Your task to perform on an android device: What's the US dollar exchange rate against the Canadian Dollar? Image 0: 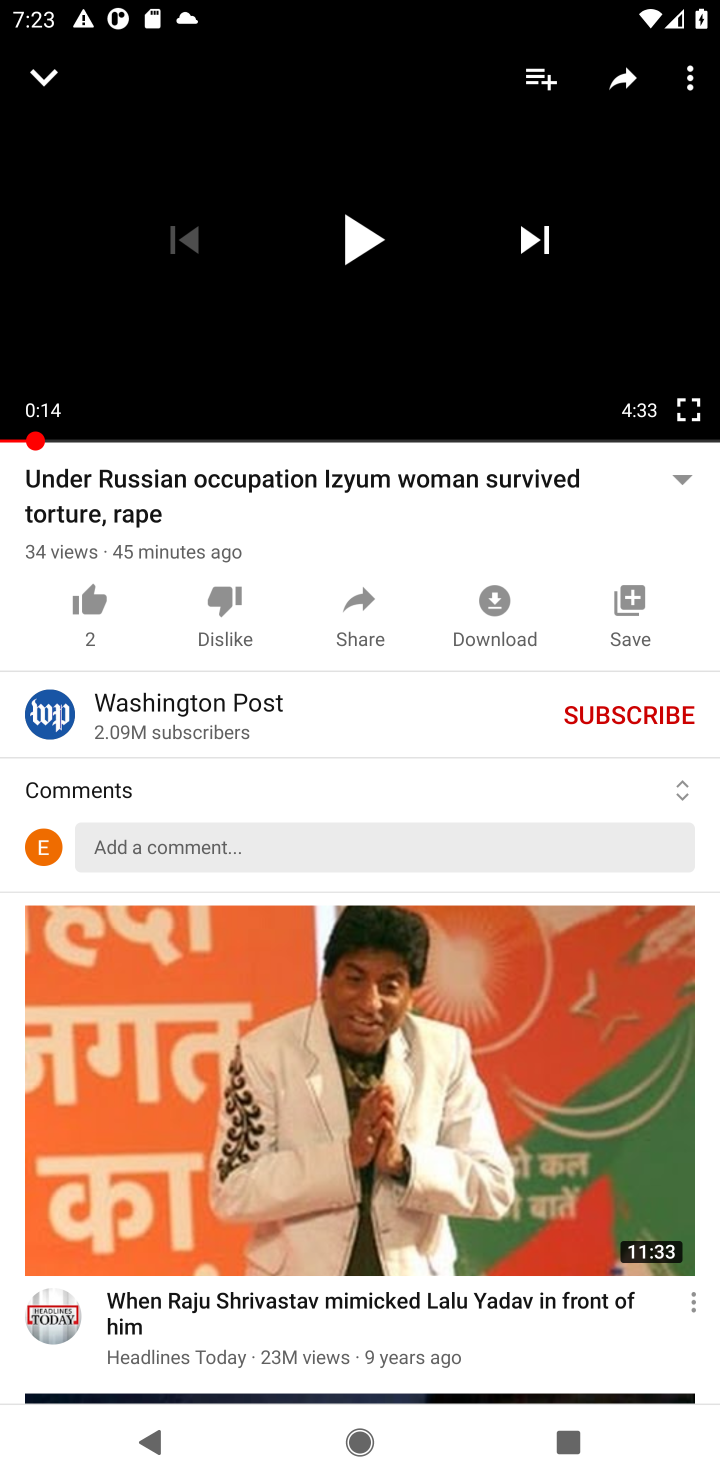
Step 0: press home button
Your task to perform on an android device: What's the US dollar exchange rate against the Canadian Dollar? Image 1: 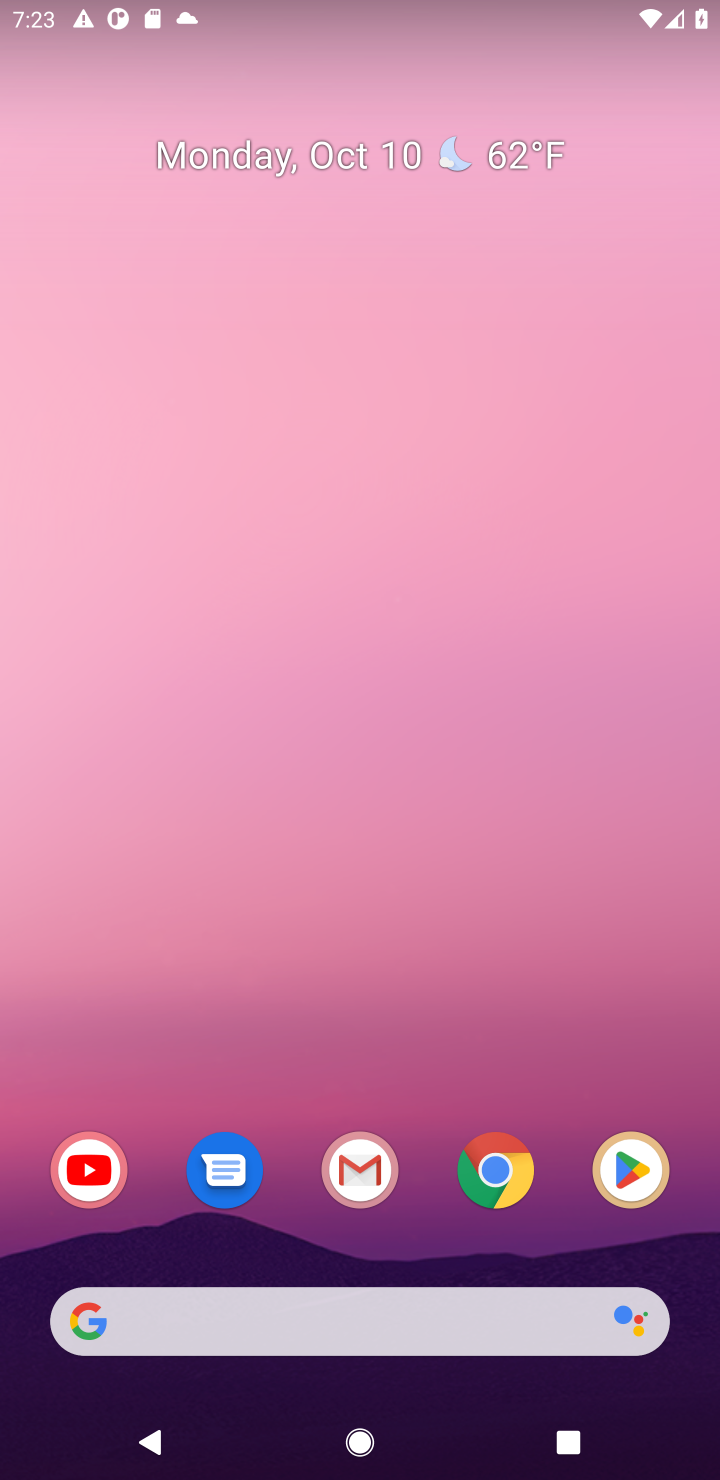
Step 1: drag from (418, 1429) to (719, 1114)
Your task to perform on an android device: What's the US dollar exchange rate against the Canadian Dollar? Image 2: 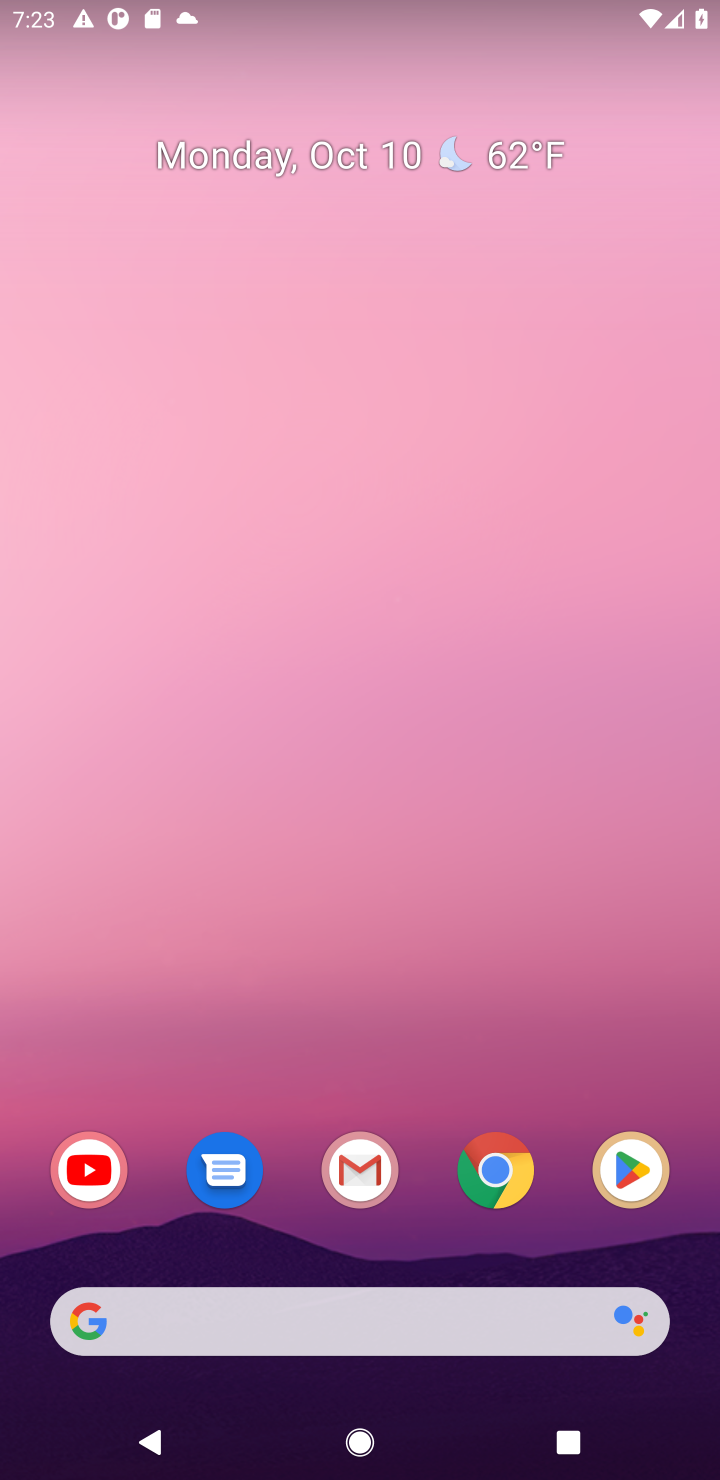
Step 2: click (502, 1199)
Your task to perform on an android device: What's the US dollar exchange rate against the Canadian Dollar? Image 3: 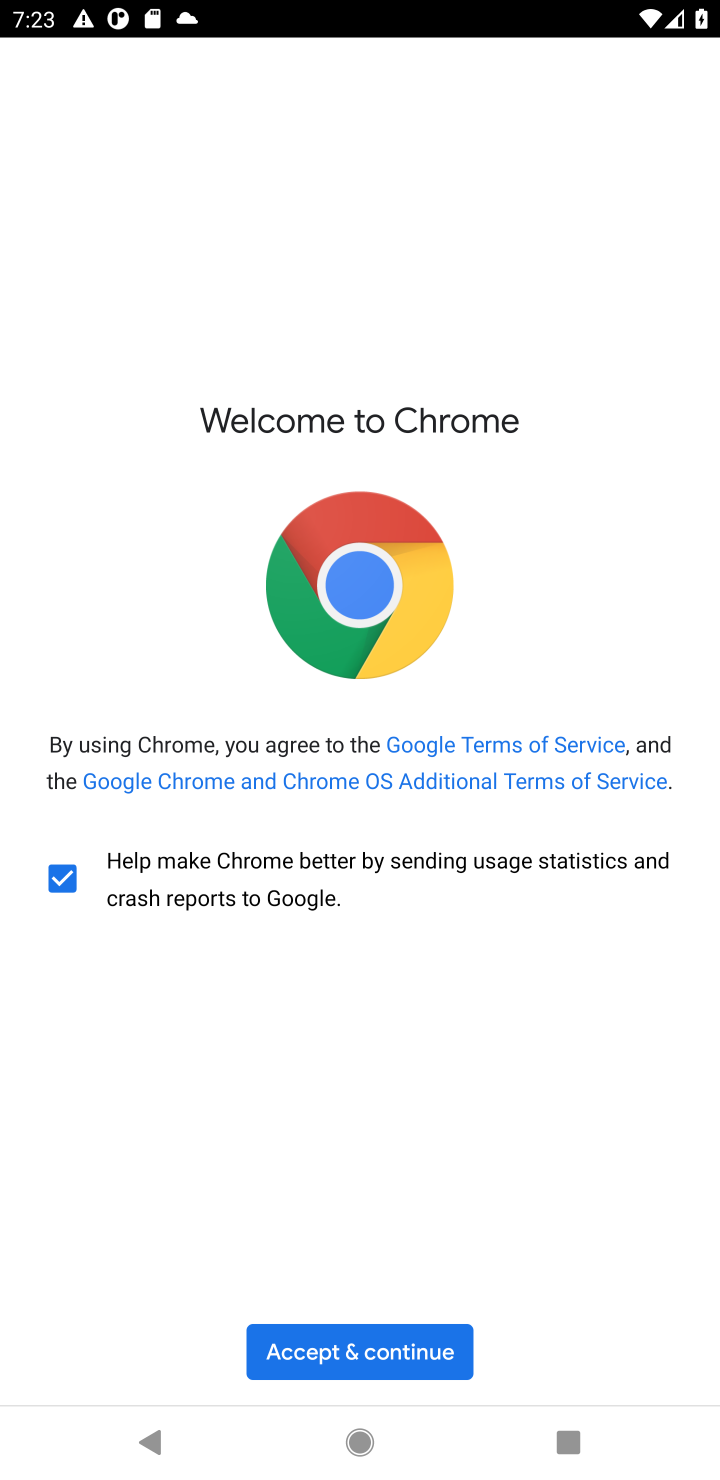
Step 3: click (375, 1339)
Your task to perform on an android device: What's the US dollar exchange rate against the Canadian Dollar? Image 4: 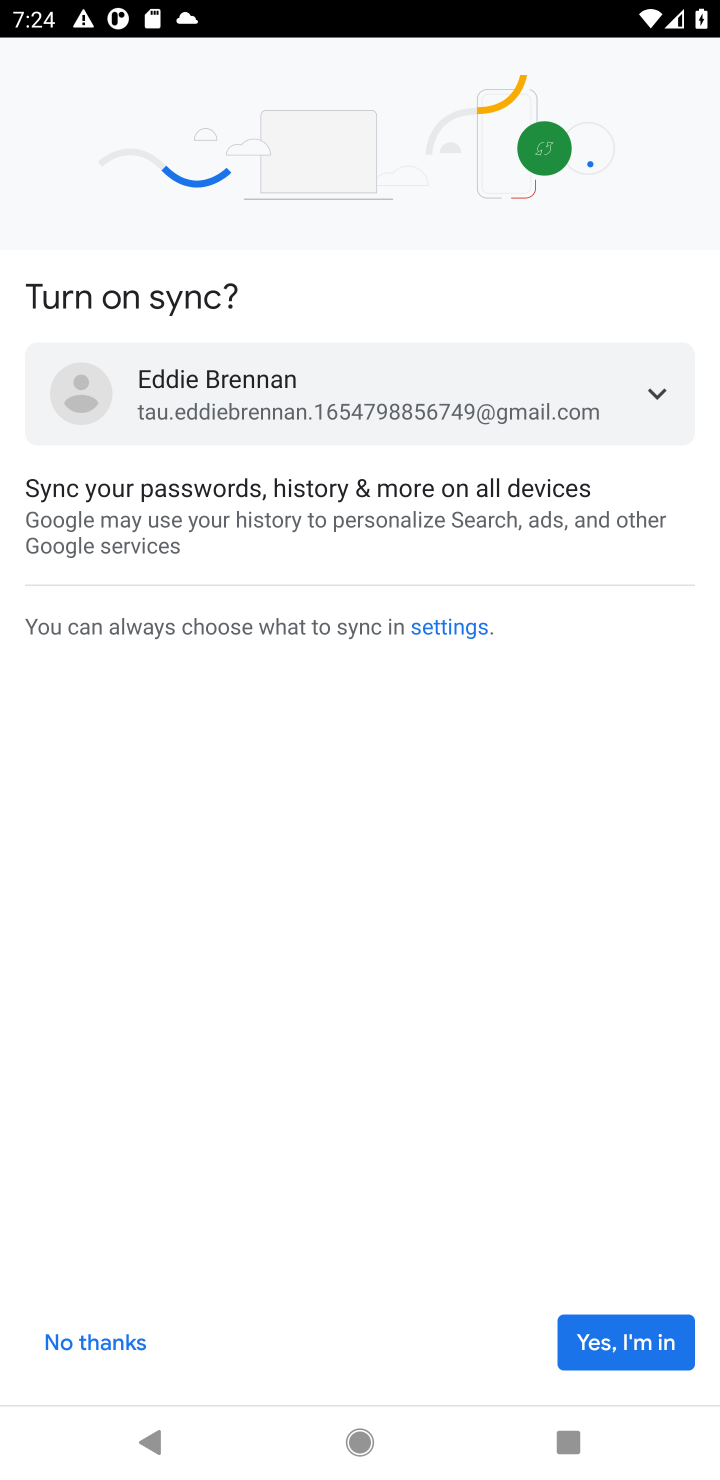
Step 4: click (618, 1332)
Your task to perform on an android device: What's the US dollar exchange rate against the Canadian Dollar? Image 5: 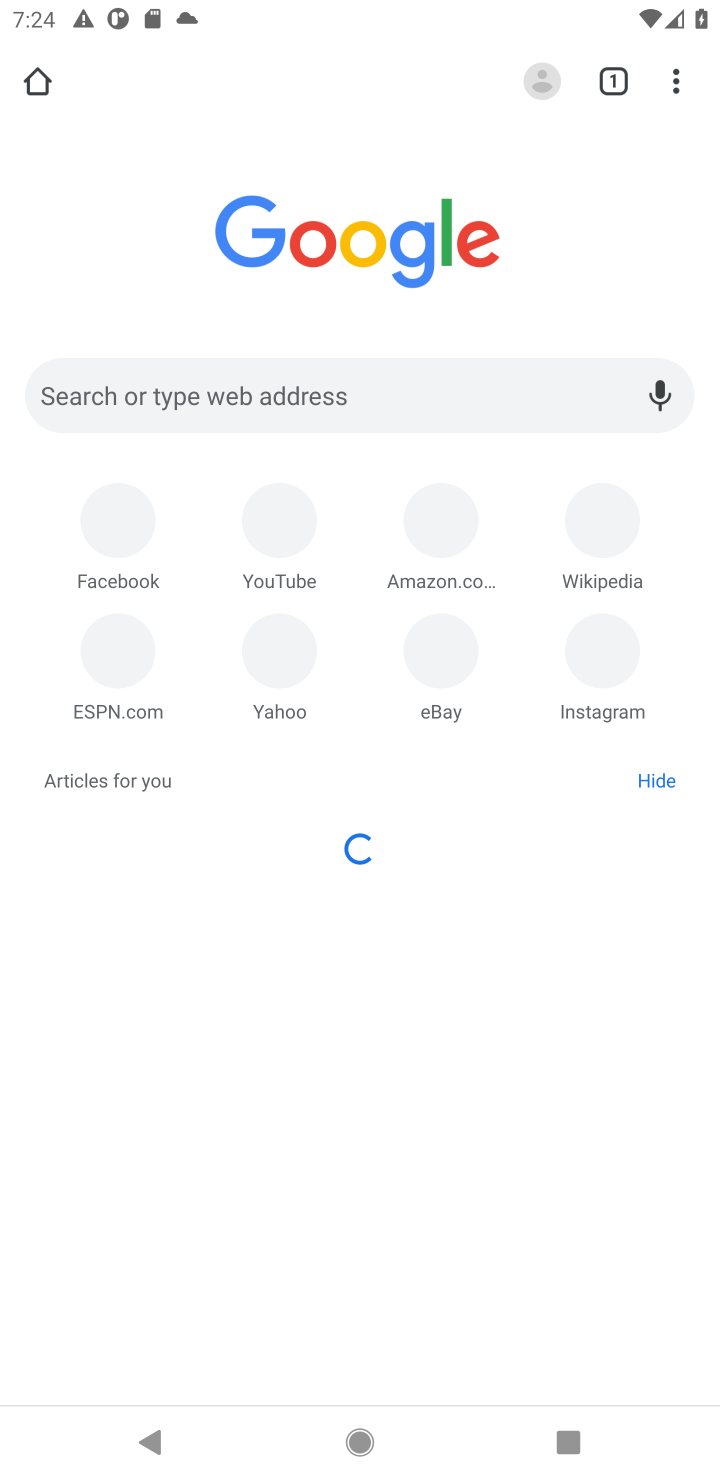
Step 5: click (335, 400)
Your task to perform on an android device: What's the US dollar exchange rate against the Canadian Dollar? Image 6: 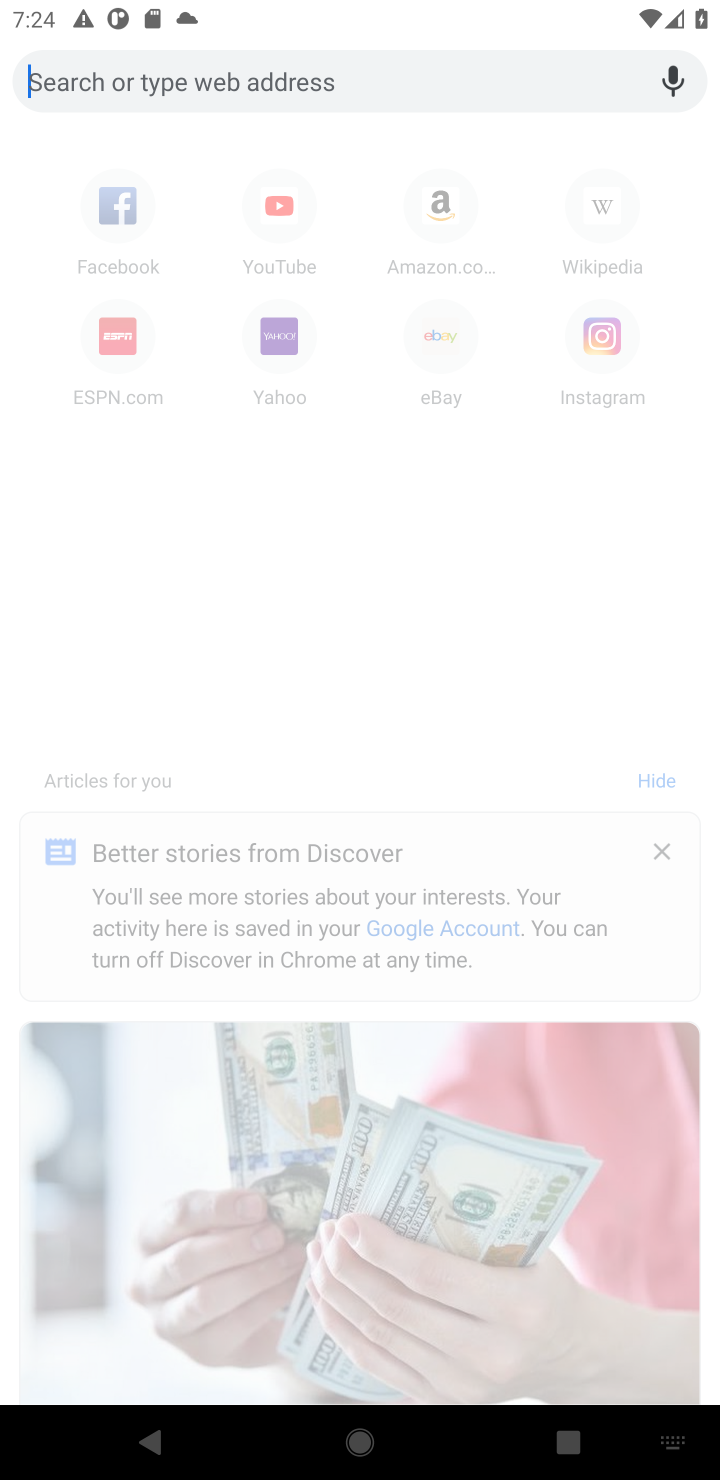
Step 6: type "US dollar exchange rate against the Canadian Dollar"
Your task to perform on an android device: What's the US dollar exchange rate against the Canadian Dollar? Image 7: 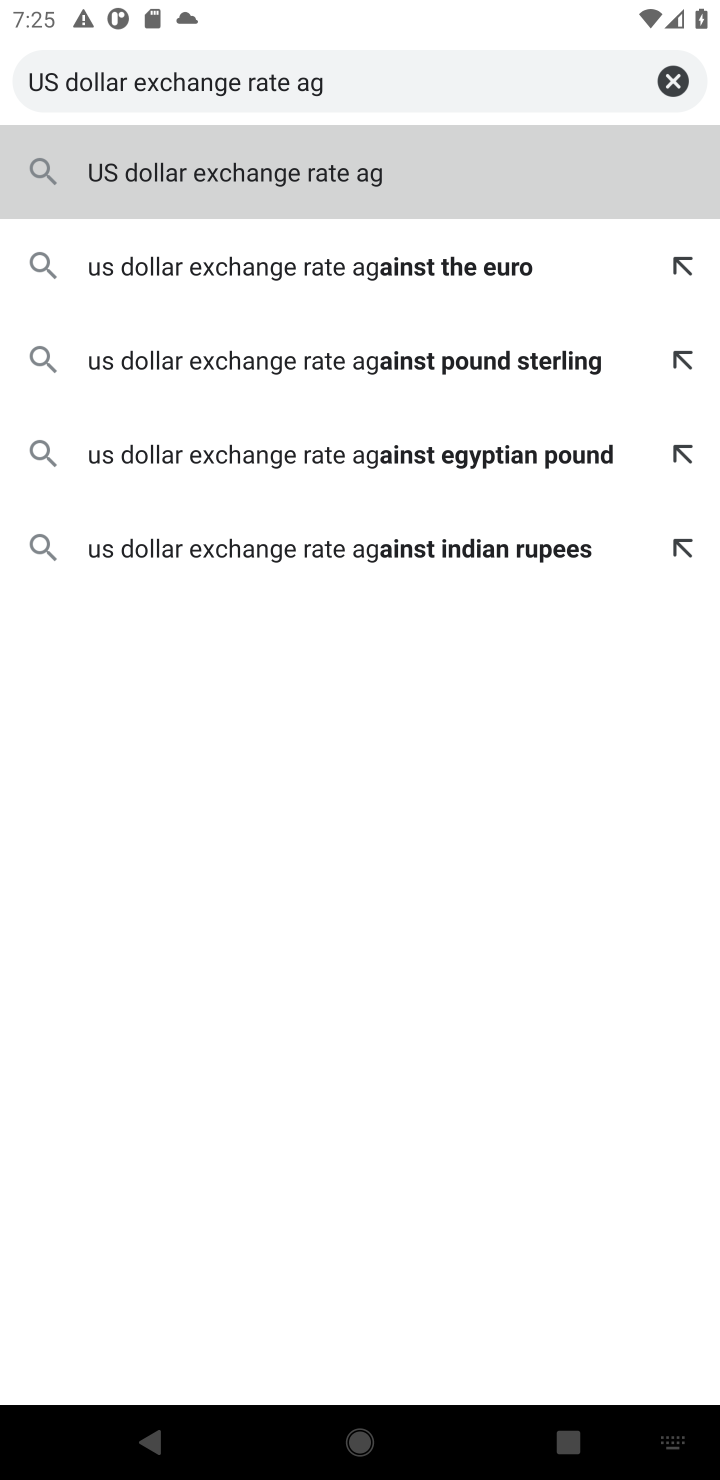
Step 7: type "ainst the Canadian Dollar"
Your task to perform on an android device: What's the US dollar exchange rate against the Canadian Dollar? Image 8: 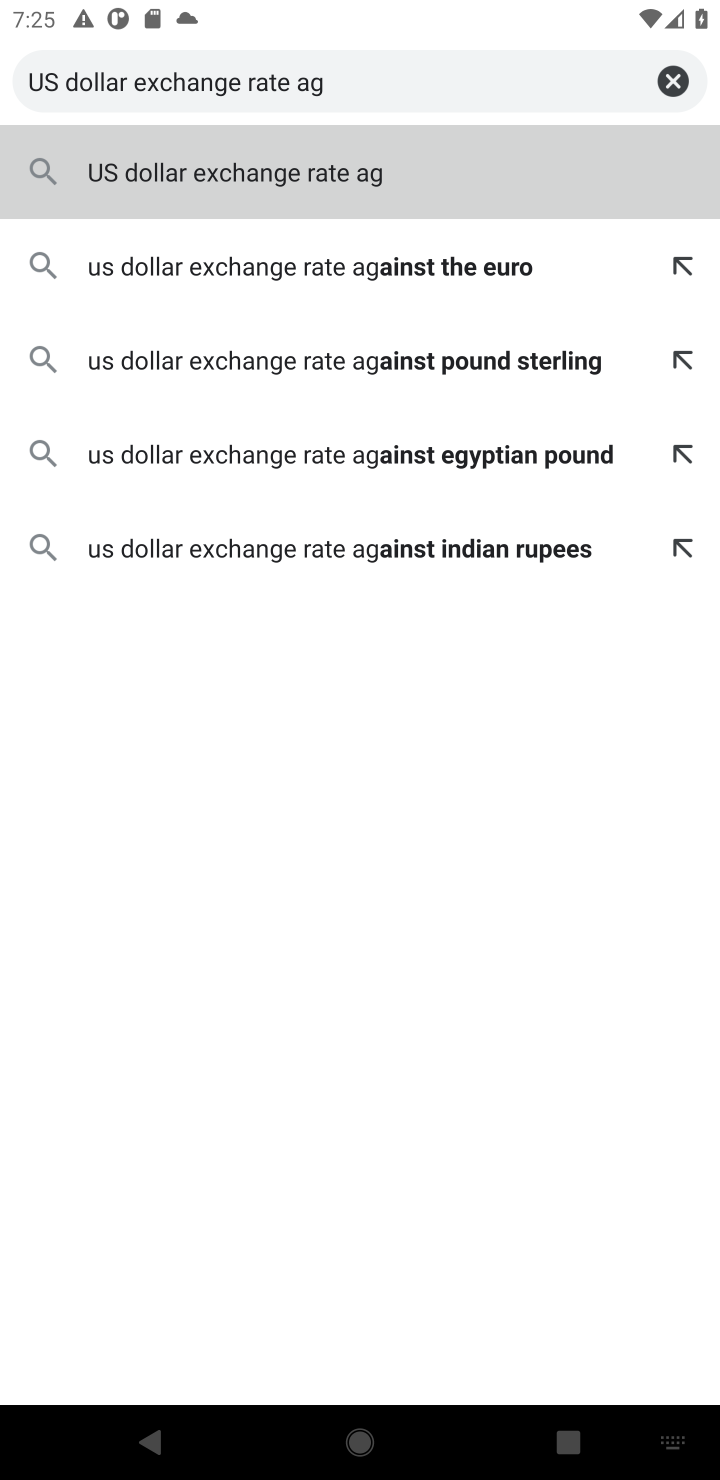
Step 8: click (532, 80)
Your task to perform on an android device: What's the US dollar exchange rate against the Canadian Dollar? Image 9: 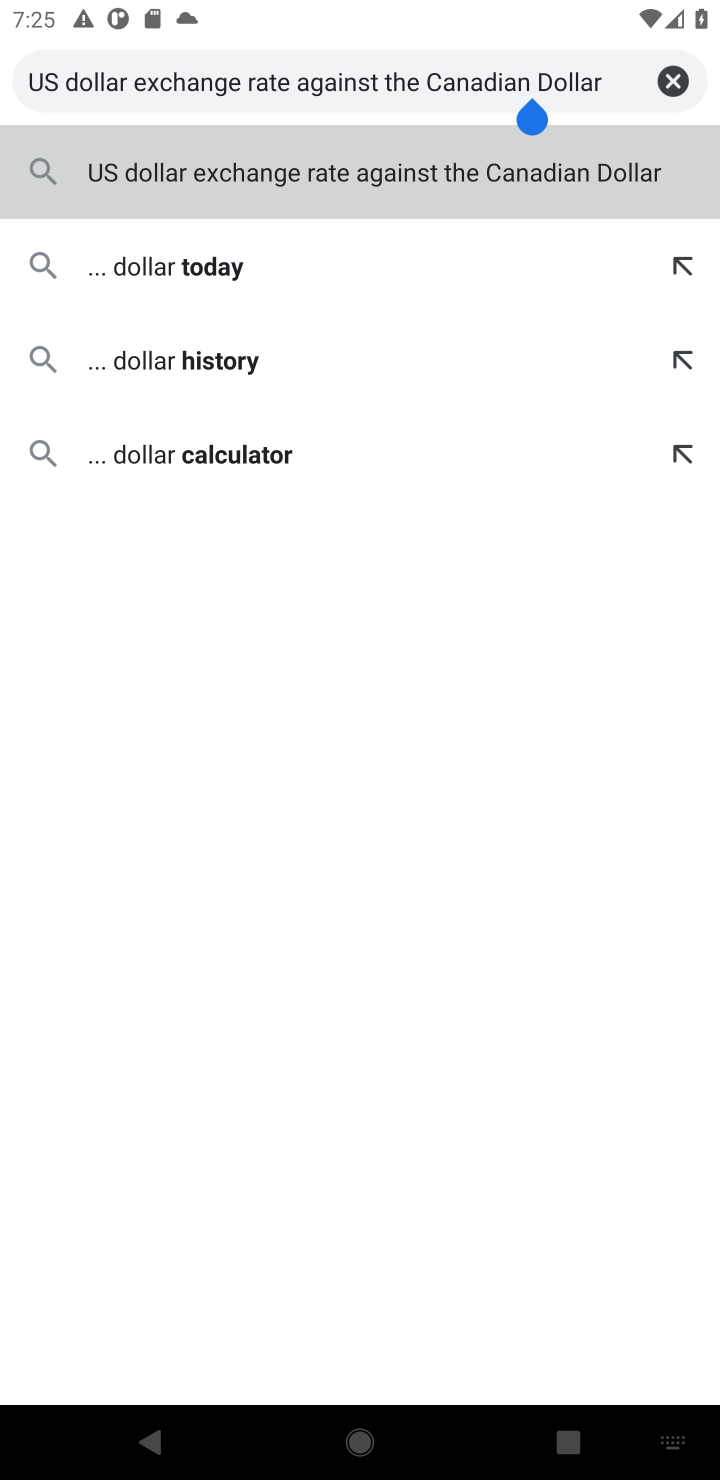
Step 9: press enter
Your task to perform on an android device: What's the US dollar exchange rate against the Canadian Dollar? Image 10: 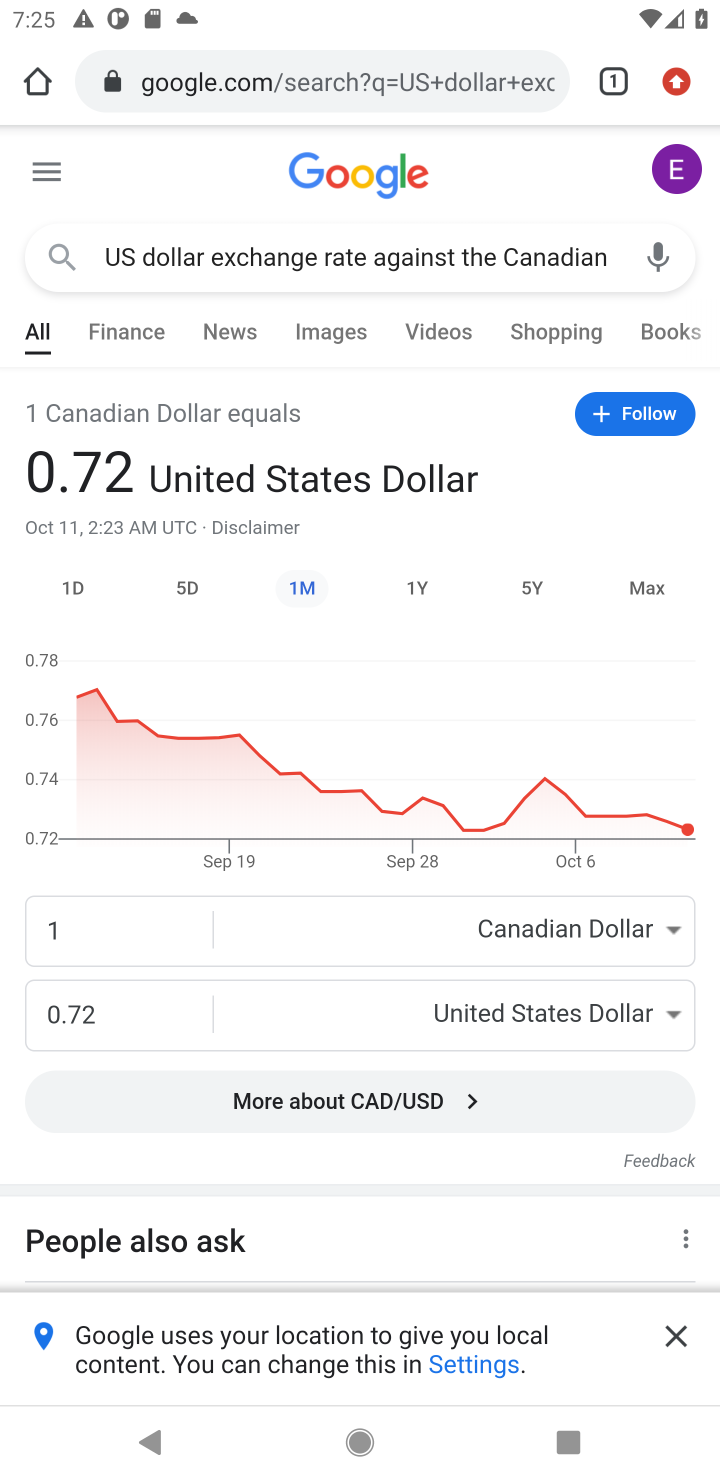
Step 10: task complete